Your task to perform on an android device: delete the emails in spam in the gmail app Image 0: 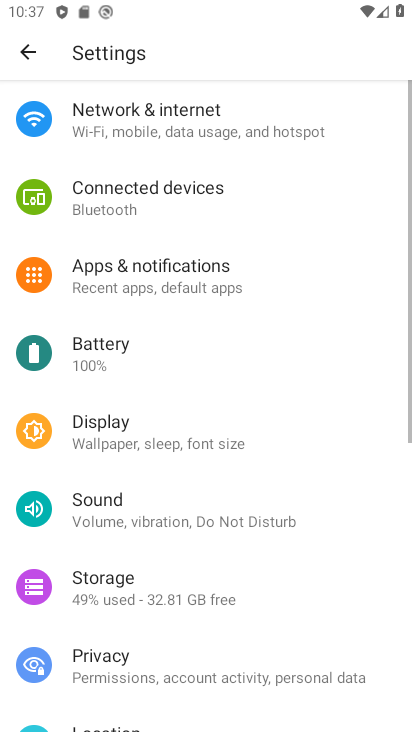
Step 0: press home button
Your task to perform on an android device: delete the emails in spam in the gmail app Image 1: 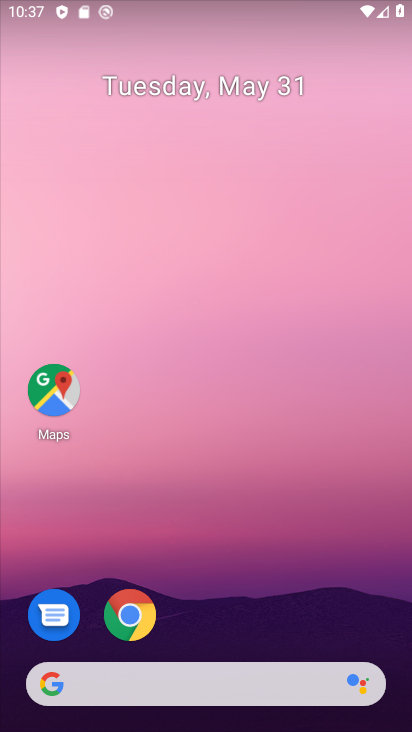
Step 1: drag from (220, 646) to (296, 1)
Your task to perform on an android device: delete the emails in spam in the gmail app Image 2: 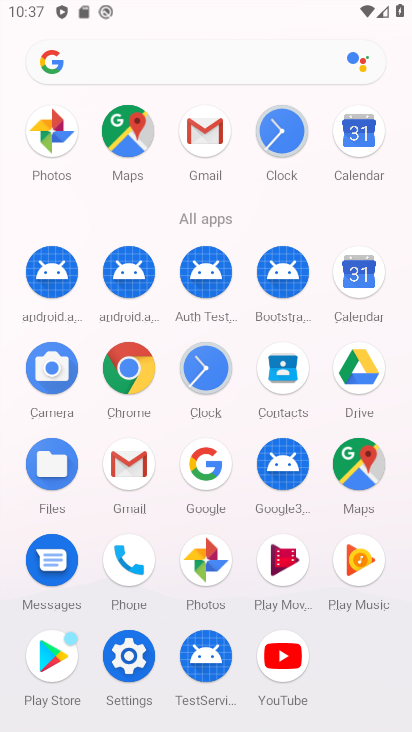
Step 2: click (116, 463)
Your task to perform on an android device: delete the emails in spam in the gmail app Image 3: 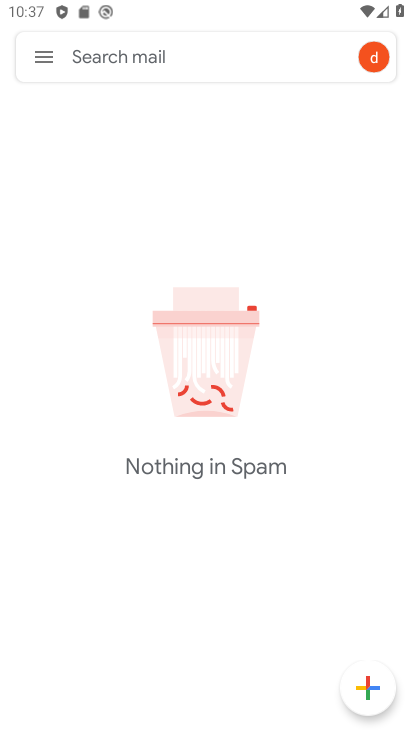
Step 3: task complete